Your task to perform on an android device: Go to location settings Image 0: 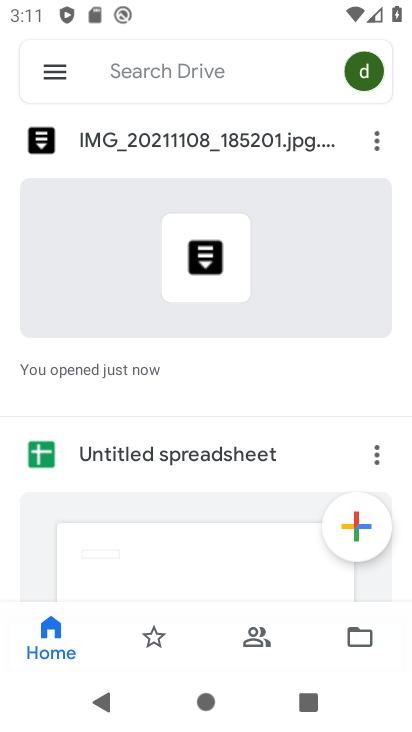
Step 0: press home button
Your task to perform on an android device: Go to location settings Image 1: 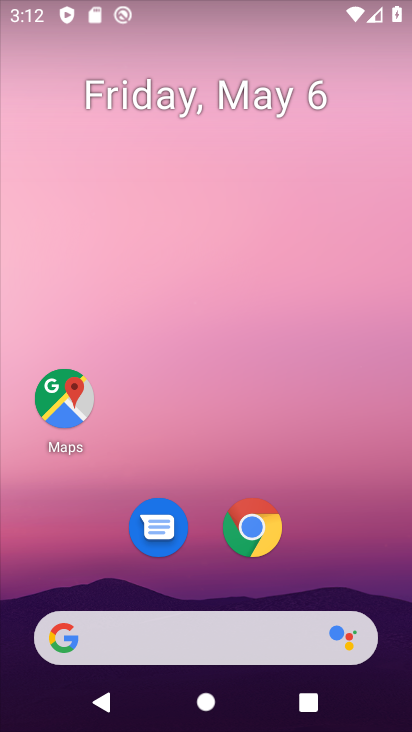
Step 1: drag from (339, 568) to (356, 185)
Your task to perform on an android device: Go to location settings Image 2: 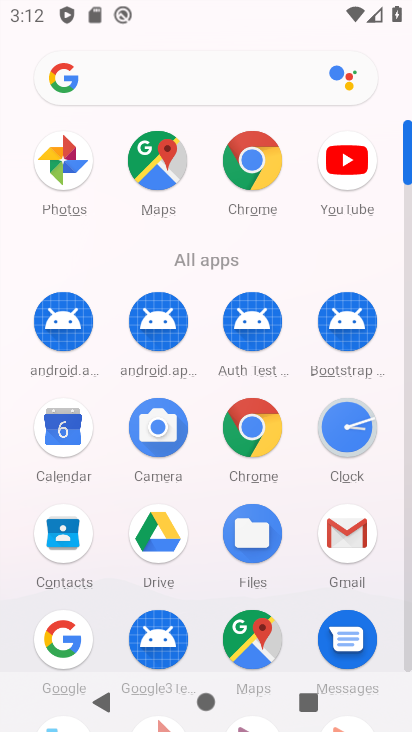
Step 2: drag from (199, 514) to (285, 155)
Your task to perform on an android device: Go to location settings Image 3: 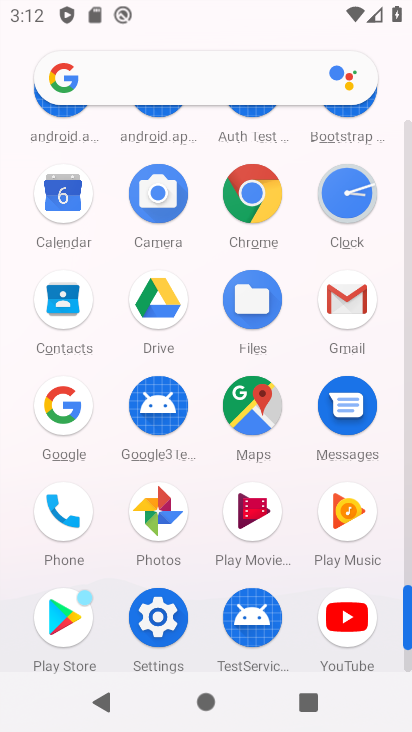
Step 3: click (155, 624)
Your task to perform on an android device: Go to location settings Image 4: 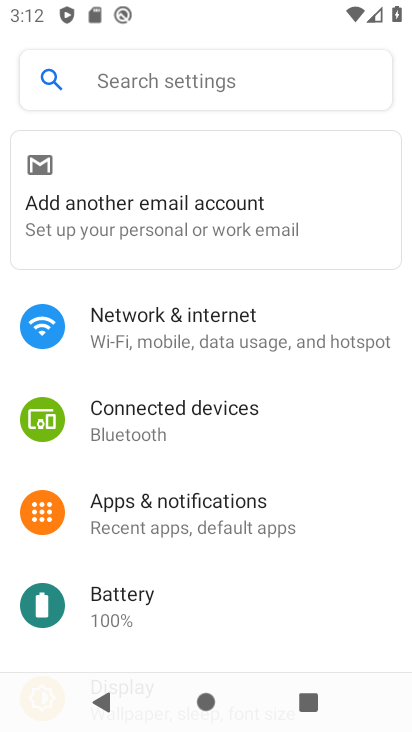
Step 4: drag from (239, 600) to (323, 181)
Your task to perform on an android device: Go to location settings Image 5: 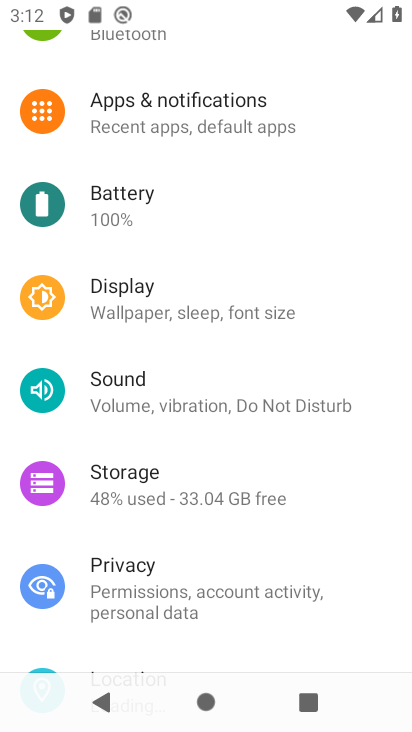
Step 5: drag from (175, 557) to (265, 202)
Your task to perform on an android device: Go to location settings Image 6: 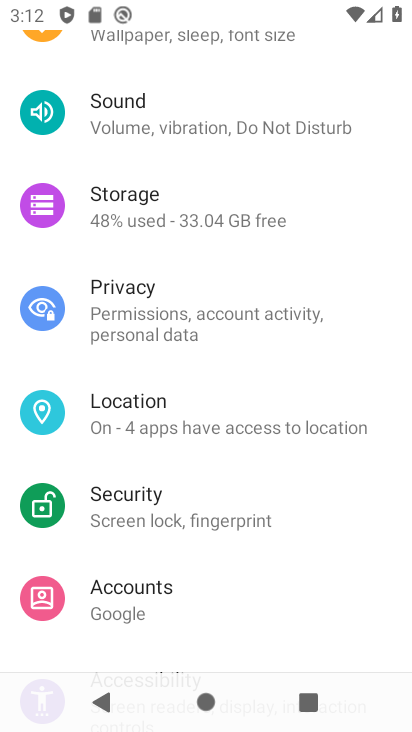
Step 6: click (154, 400)
Your task to perform on an android device: Go to location settings Image 7: 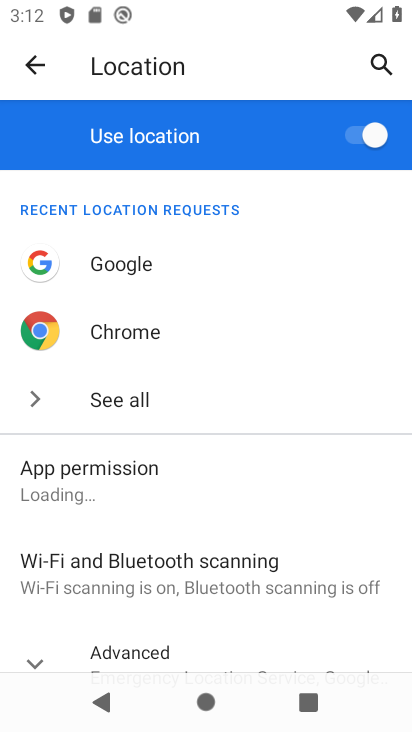
Step 7: task complete